Your task to perform on an android device: change the clock display to analog Image 0: 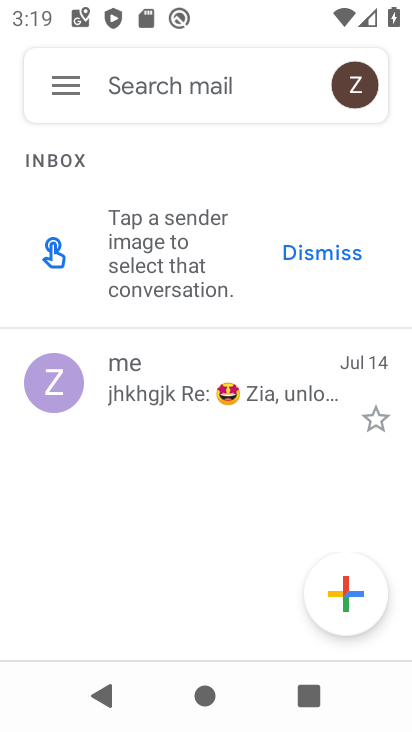
Step 0: press home button
Your task to perform on an android device: change the clock display to analog Image 1: 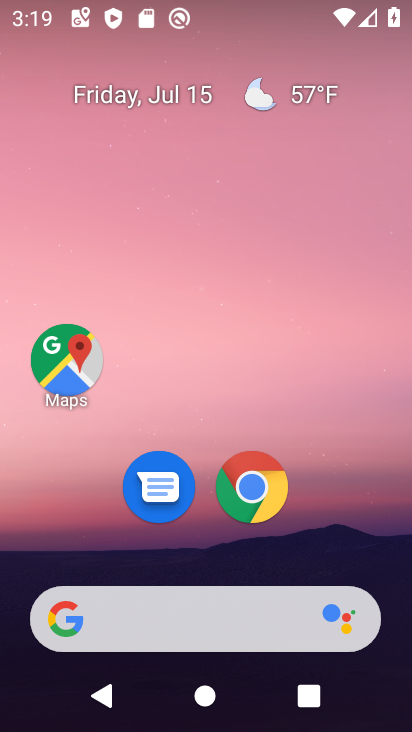
Step 1: drag from (172, 520) to (266, 162)
Your task to perform on an android device: change the clock display to analog Image 2: 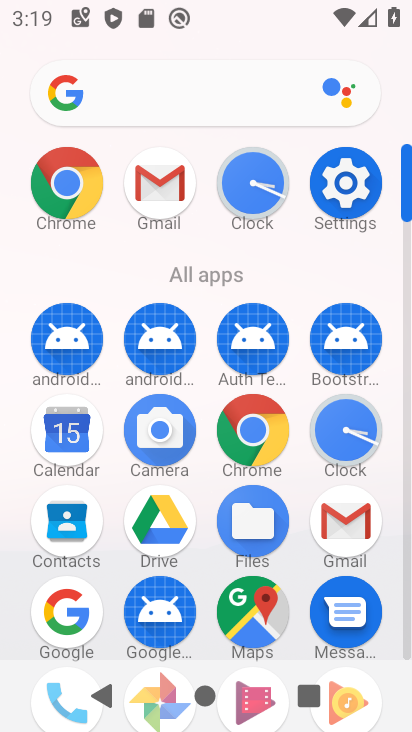
Step 2: click (350, 427)
Your task to perform on an android device: change the clock display to analog Image 3: 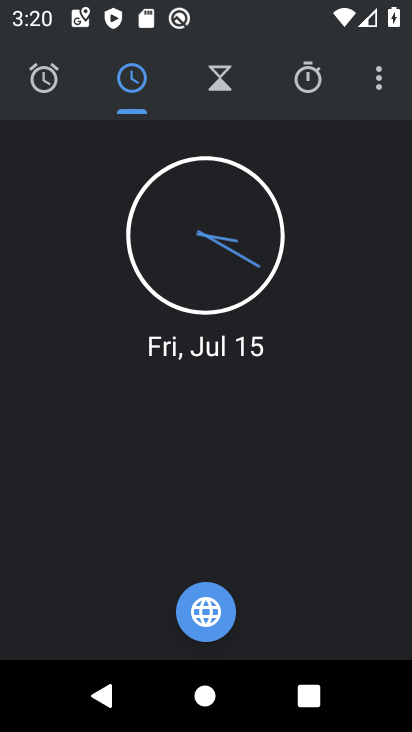
Step 3: click (368, 96)
Your task to perform on an android device: change the clock display to analog Image 4: 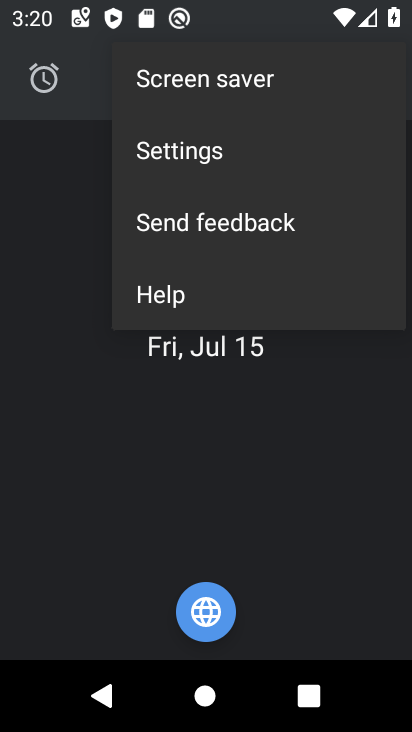
Step 4: click (201, 142)
Your task to perform on an android device: change the clock display to analog Image 5: 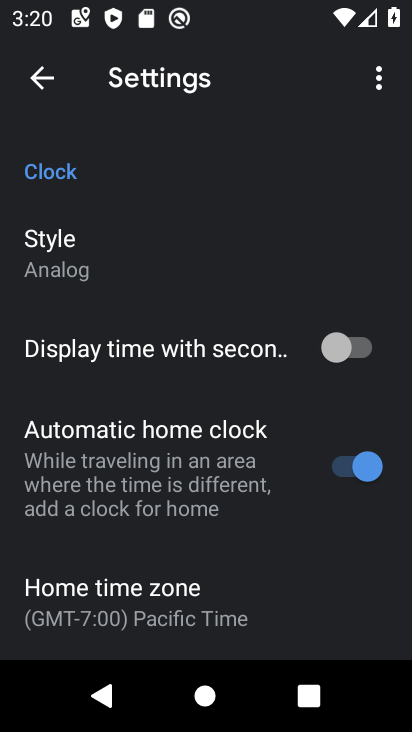
Step 5: task complete